Your task to perform on an android device: Go to calendar. Show me events next week Image 0: 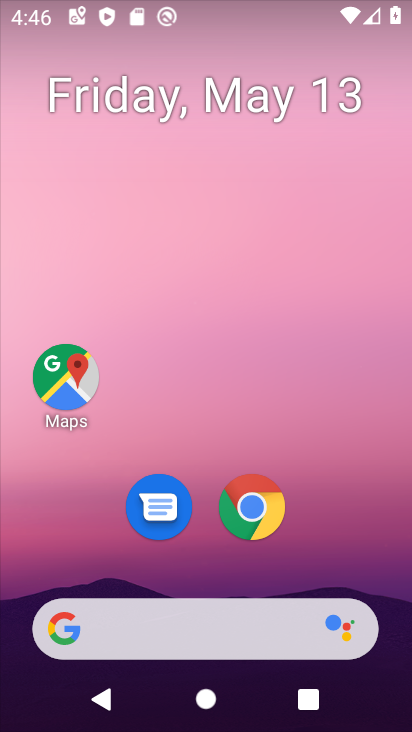
Step 0: drag from (328, 520) to (201, 11)
Your task to perform on an android device: Go to calendar. Show me events next week Image 1: 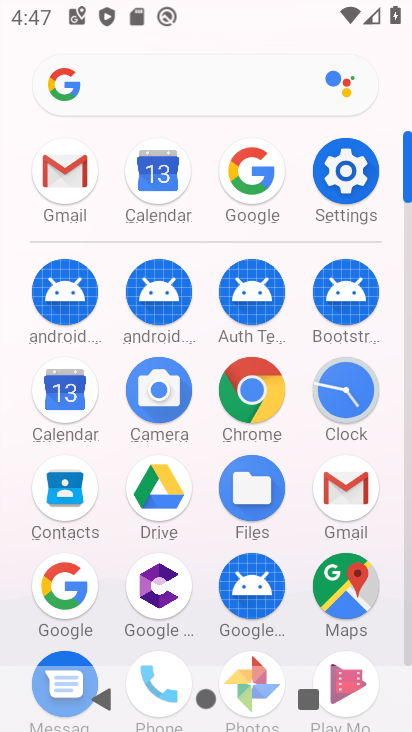
Step 1: click (159, 177)
Your task to perform on an android device: Go to calendar. Show me events next week Image 2: 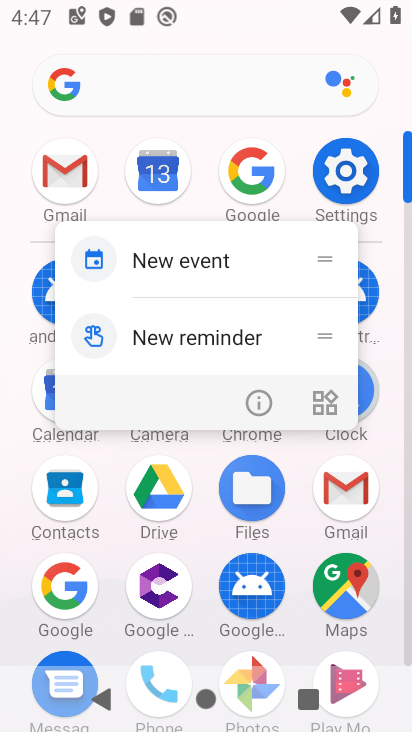
Step 2: click (159, 177)
Your task to perform on an android device: Go to calendar. Show me events next week Image 3: 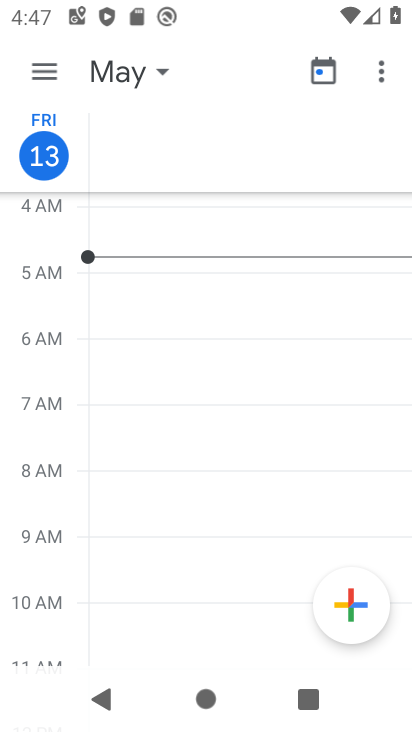
Step 3: click (51, 65)
Your task to perform on an android device: Go to calendar. Show me events next week Image 4: 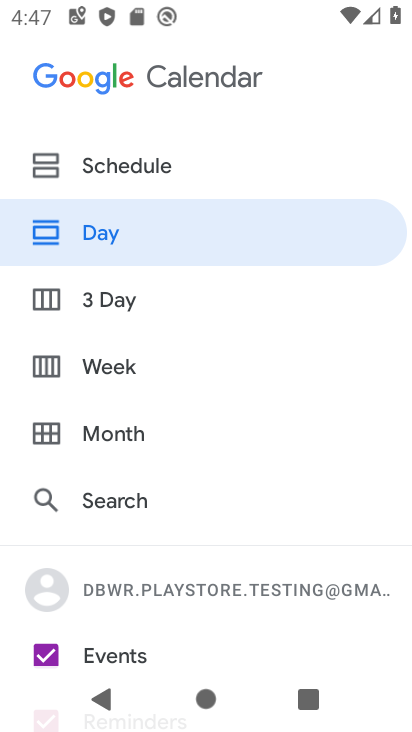
Step 4: click (115, 396)
Your task to perform on an android device: Go to calendar. Show me events next week Image 5: 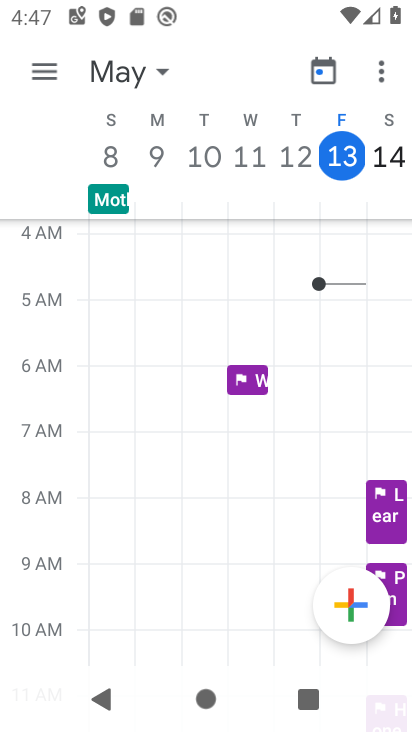
Step 5: task complete